Your task to perform on an android device: Go to sound settings Image 0: 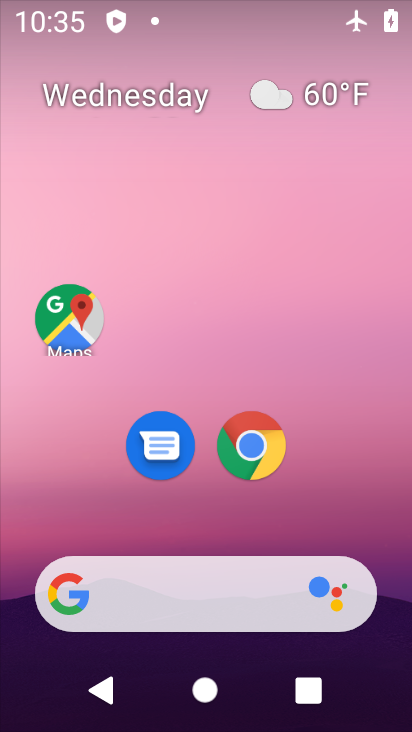
Step 0: drag from (220, 461) to (234, 122)
Your task to perform on an android device: Go to sound settings Image 1: 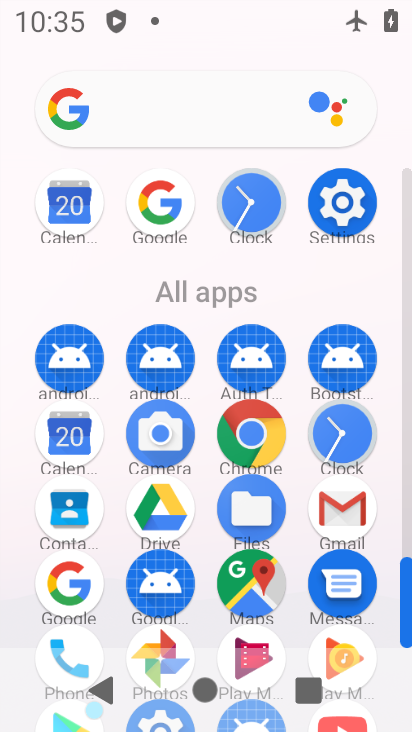
Step 1: click (339, 218)
Your task to perform on an android device: Go to sound settings Image 2: 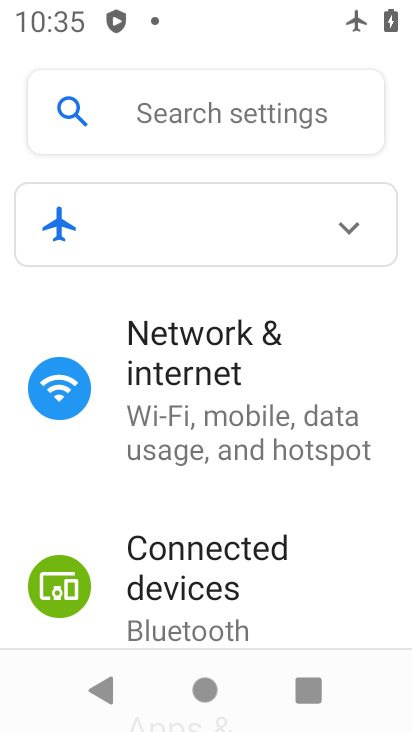
Step 2: drag from (222, 601) to (236, 325)
Your task to perform on an android device: Go to sound settings Image 3: 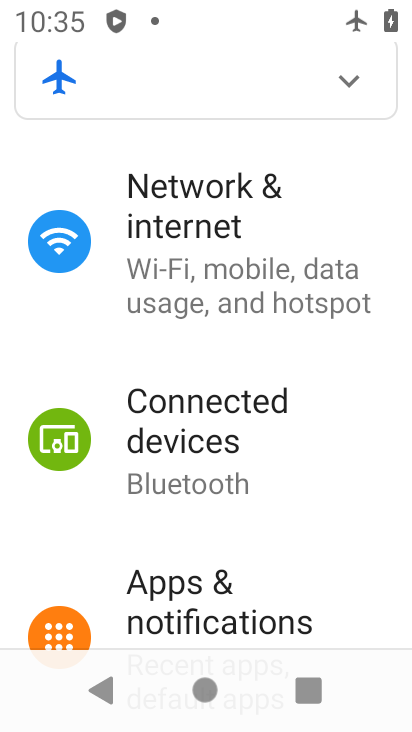
Step 3: drag from (236, 556) to (276, 242)
Your task to perform on an android device: Go to sound settings Image 4: 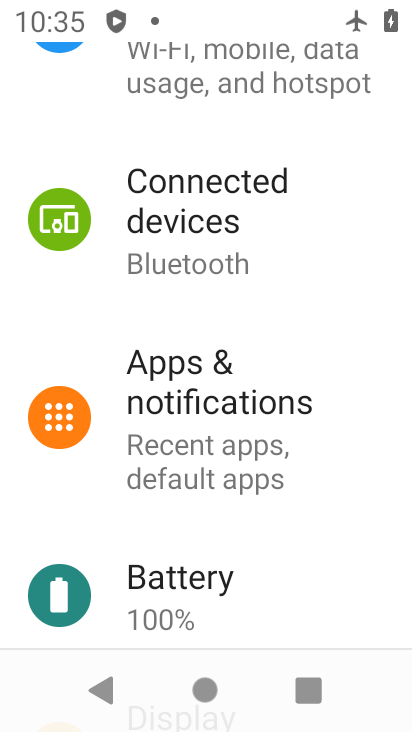
Step 4: drag from (245, 530) to (277, 250)
Your task to perform on an android device: Go to sound settings Image 5: 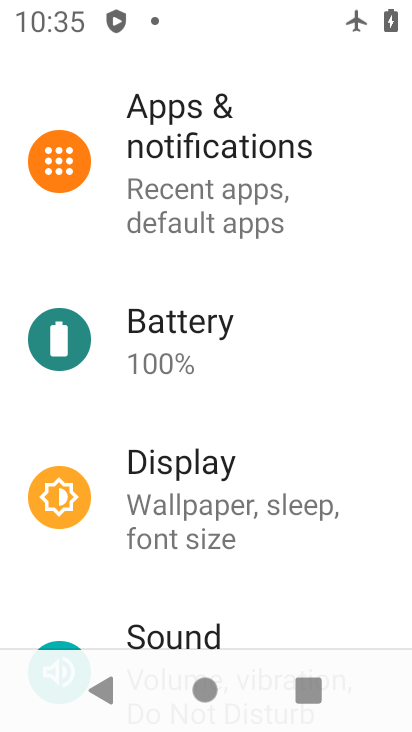
Step 5: drag from (274, 570) to (274, 350)
Your task to perform on an android device: Go to sound settings Image 6: 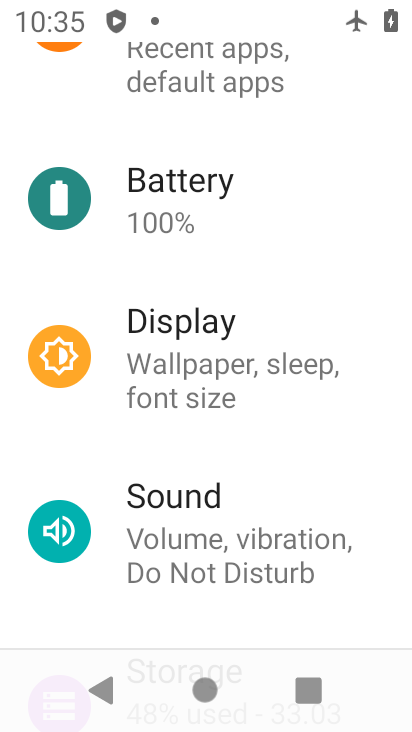
Step 6: click (237, 488)
Your task to perform on an android device: Go to sound settings Image 7: 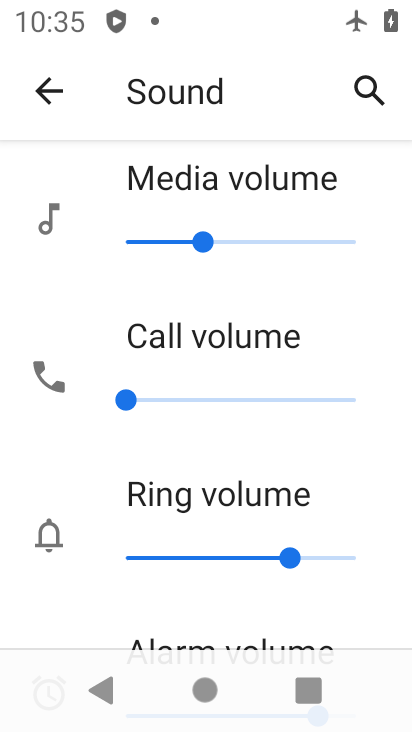
Step 7: task complete